Your task to perform on an android device: Go to privacy settings Image 0: 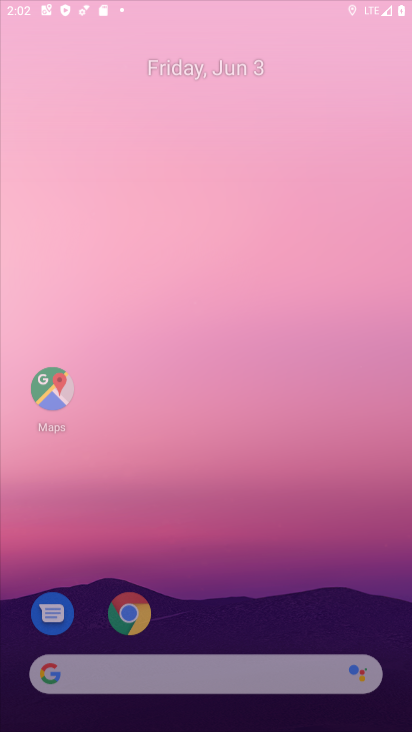
Step 0: drag from (225, 279) to (224, 95)
Your task to perform on an android device: Go to privacy settings Image 1: 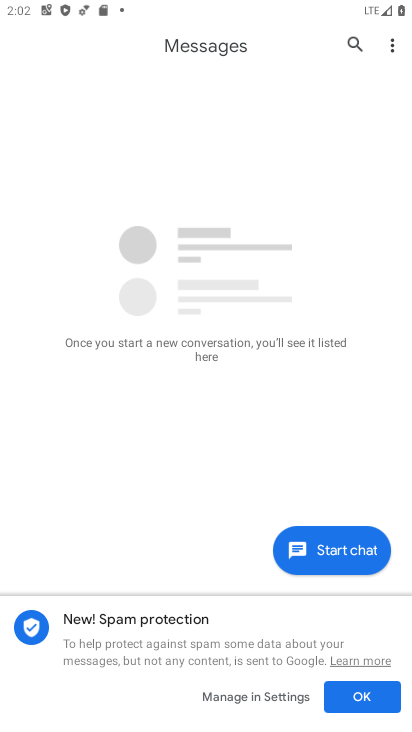
Step 1: press home button
Your task to perform on an android device: Go to privacy settings Image 2: 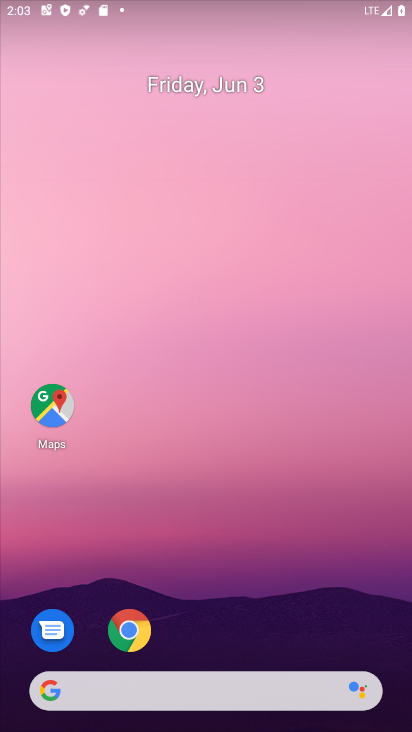
Step 2: drag from (234, 727) to (218, 68)
Your task to perform on an android device: Go to privacy settings Image 3: 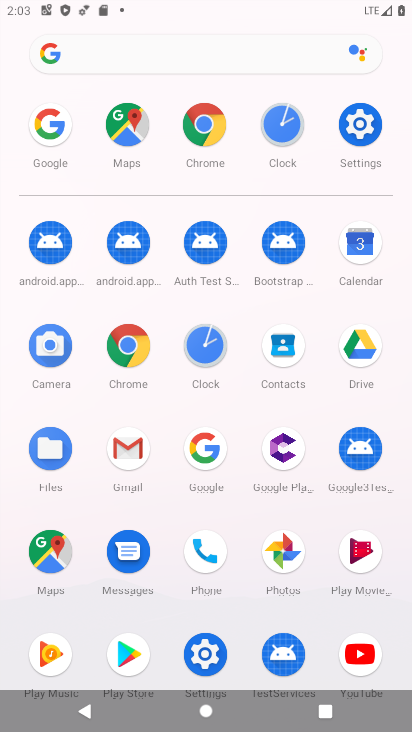
Step 3: click (351, 124)
Your task to perform on an android device: Go to privacy settings Image 4: 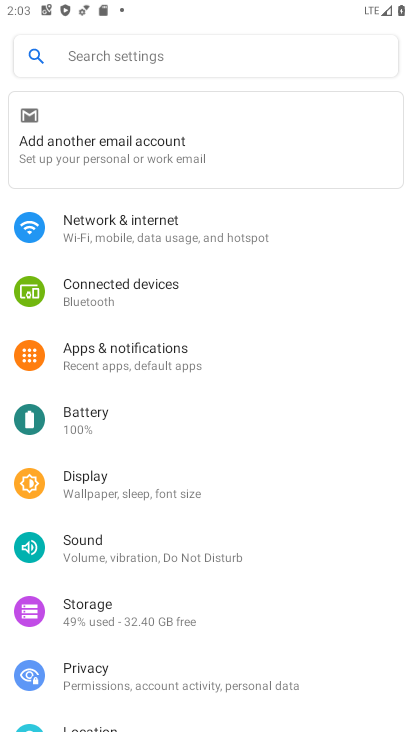
Step 4: click (100, 671)
Your task to perform on an android device: Go to privacy settings Image 5: 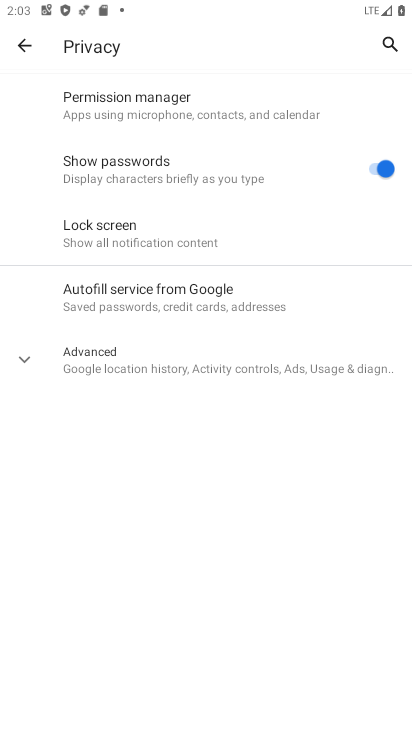
Step 5: task complete